Your task to perform on an android device: Open display settings Image 0: 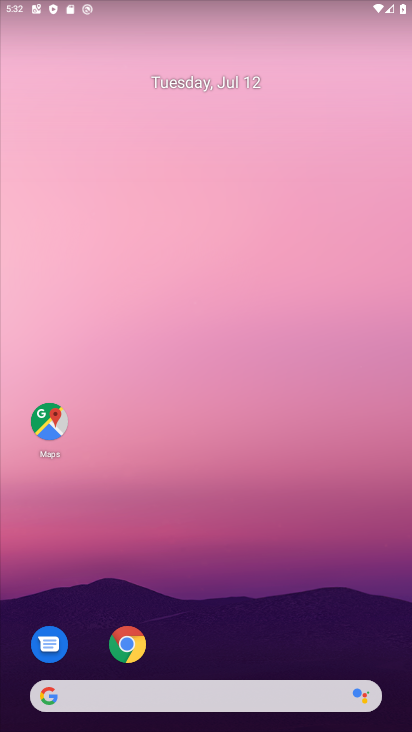
Step 0: press home button
Your task to perform on an android device: Open display settings Image 1: 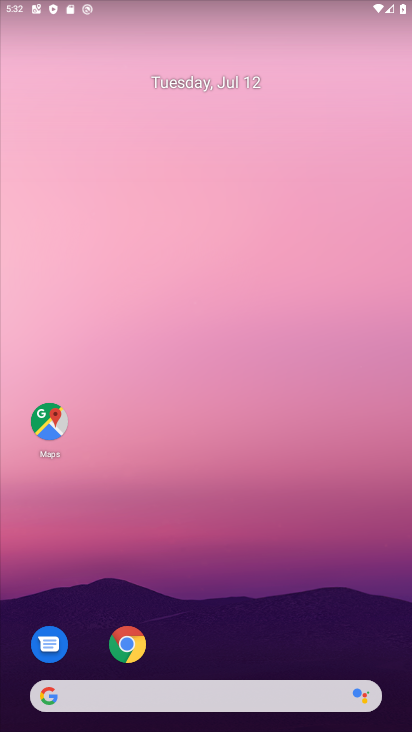
Step 1: drag from (282, 620) to (153, 45)
Your task to perform on an android device: Open display settings Image 2: 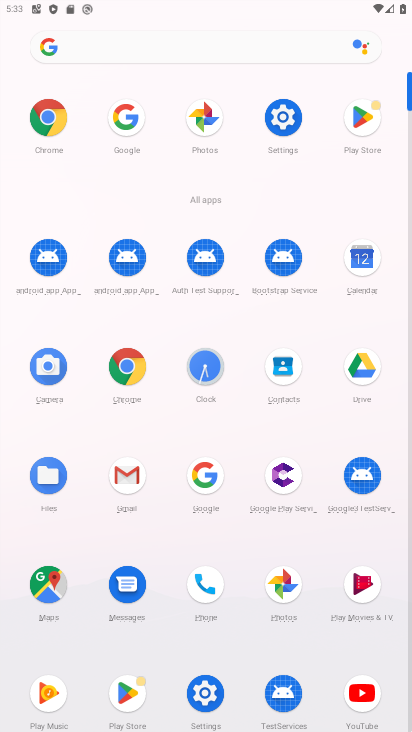
Step 2: click (204, 677)
Your task to perform on an android device: Open display settings Image 3: 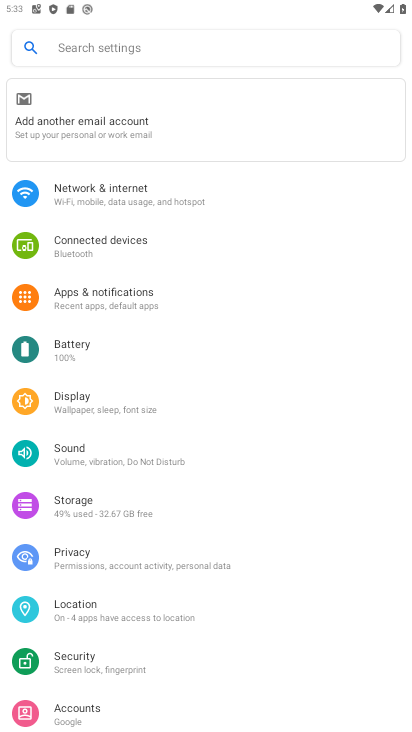
Step 3: click (66, 386)
Your task to perform on an android device: Open display settings Image 4: 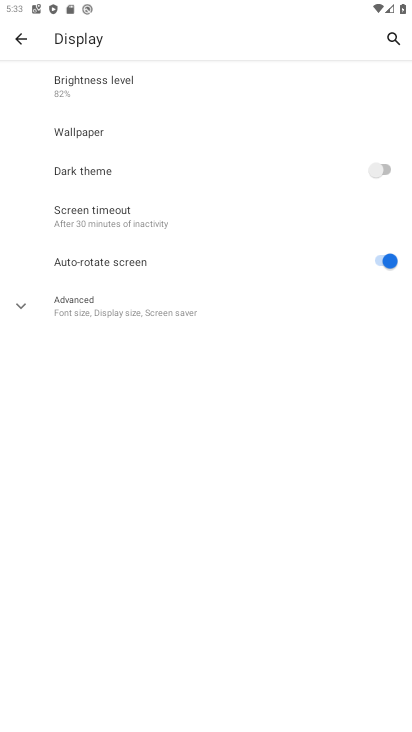
Step 4: task complete